Your task to perform on an android device: Open CNN.com Image 0: 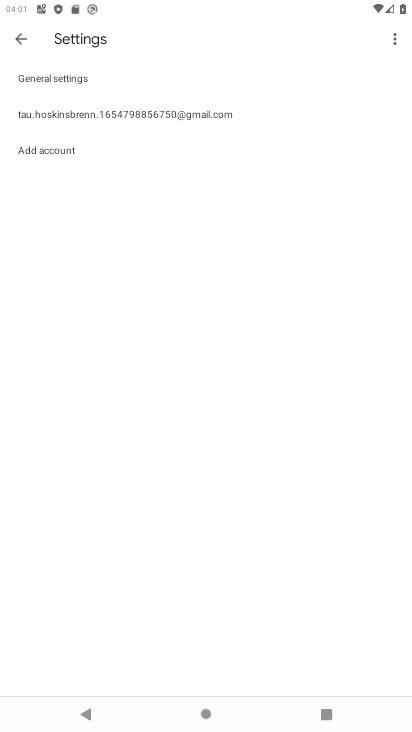
Step 0: press home button
Your task to perform on an android device: Open CNN.com Image 1: 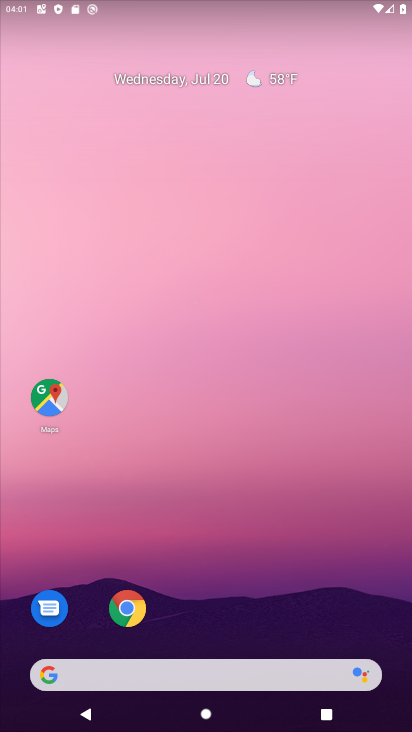
Step 1: click (146, 675)
Your task to perform on an android device: Open CNN.com Image 2: 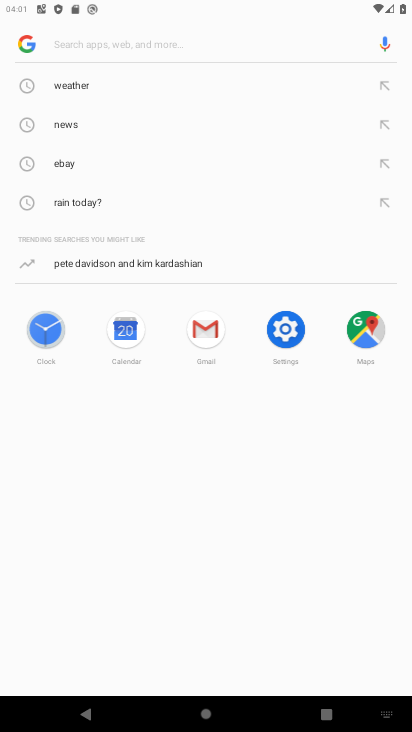
Step 2: type "cnn.com"
Your task to perform on an android device: Open CNN.com Image 3: 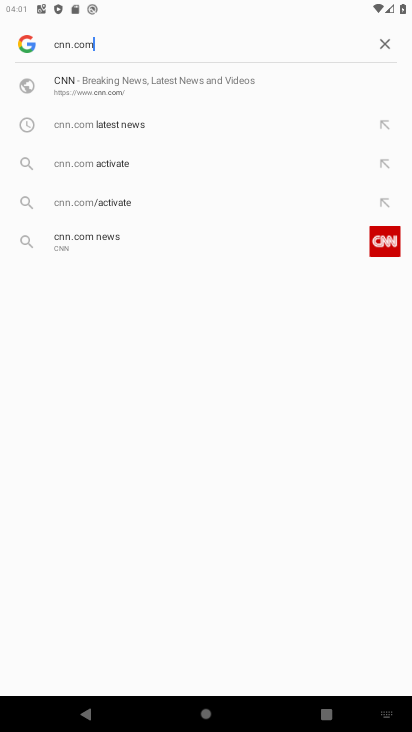
Step 3: click (156, 96)
Your task to perform on an android device: Open CNN.com Image 4: 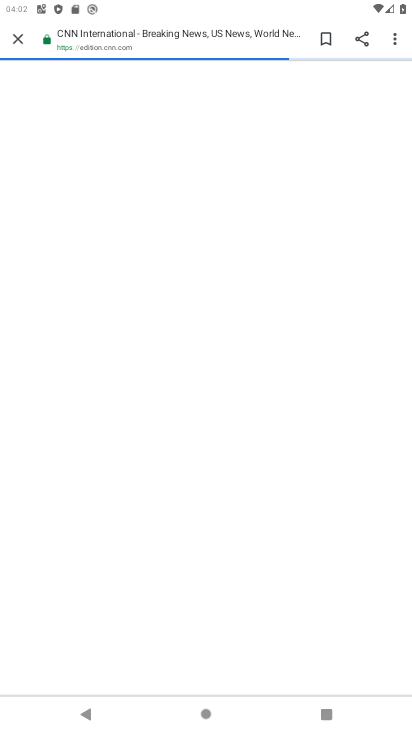
Step 4: task complete